Your task to perform on an android device: turn smart compose on in the gmail app Image 0: 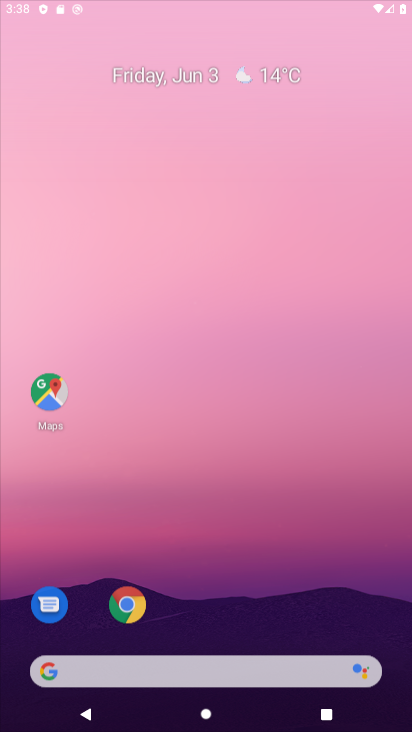
Step 0: click (175, 291)
Your task to perform on an android device: turn smart compose on in the gmail app Image 1: 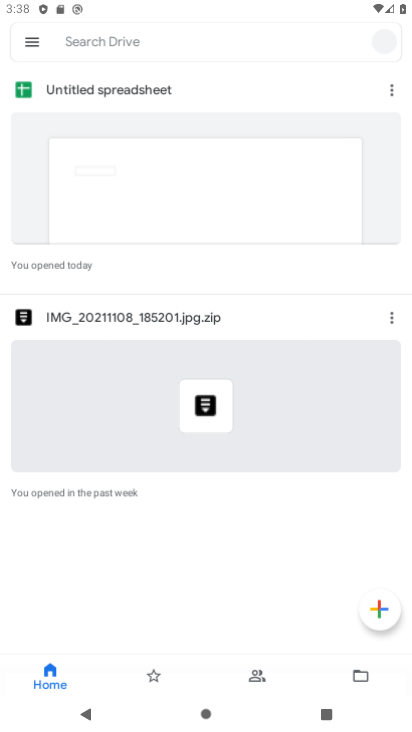
Step 1: press home button
Your task to perform on an android device: turn smart compose on in the gmail app Image 2: 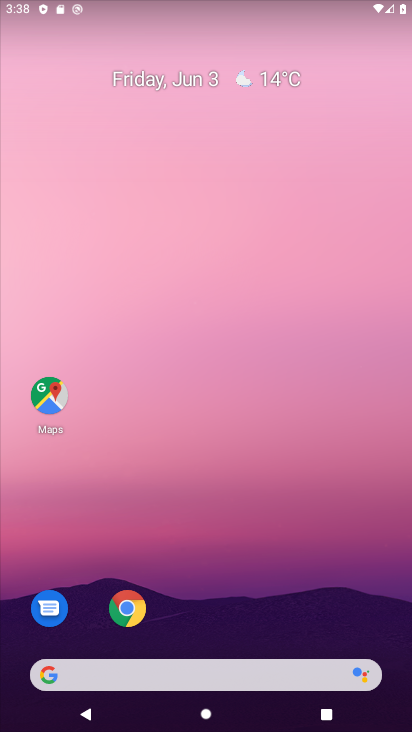
Step 2: drag from (168, 656) to (182, 325)
Your task to perform on an android device: turn smart compose on in the gmail app Image 3: 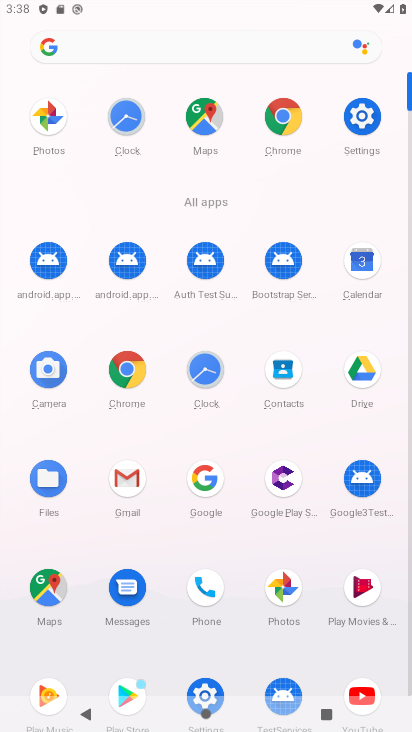
Step 3: click (139, 478)
Your task to perform on an android device: turn smart compose on in the gmail app Image 4: 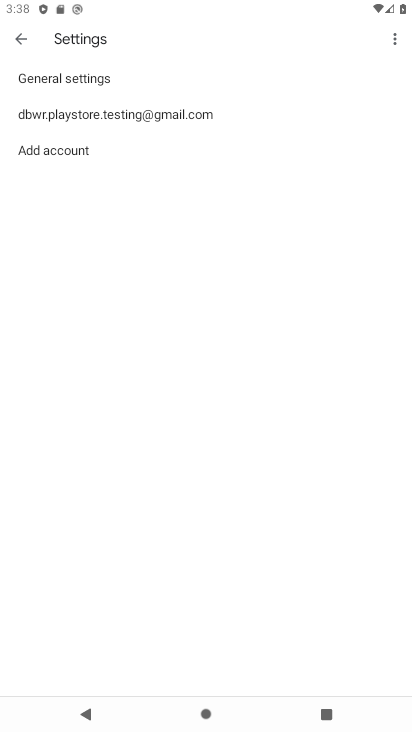
Step 4: click (66, 106)
Your task to perform on an android device: turn smart compose on in the gmail app Image 5: 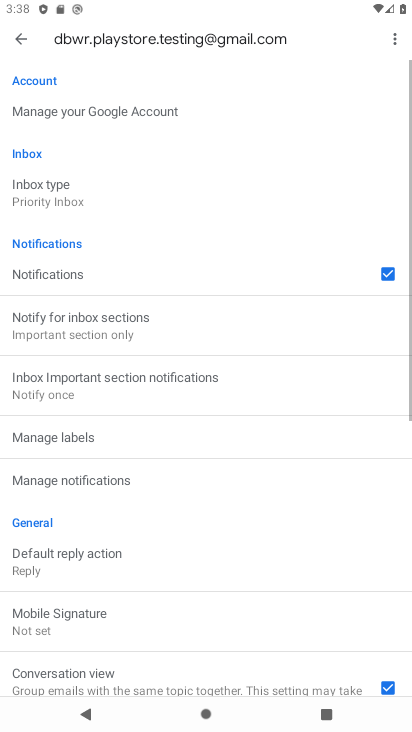
Step 5: task complete